Your task to perform on an android device: turn on priority inbox in the gmail app Image 0: 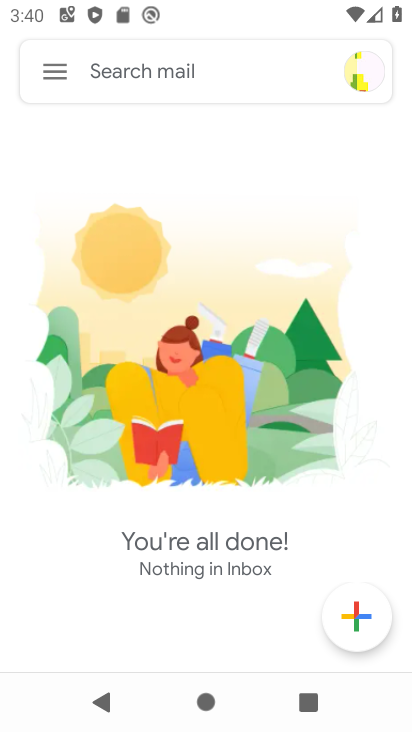
Step 0: click (61, 70)
Your task to perform on an android device: turn on priority inbox in the gmail app Image 1: 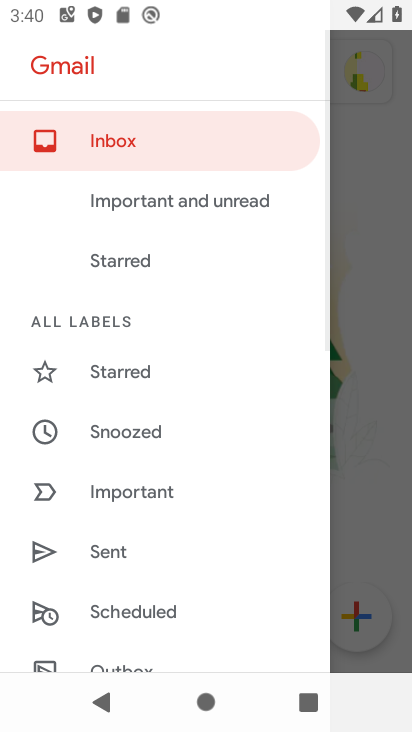
Step 1: drag from (125, 593) to (143, 313)
Your task to perform on an android device: turn on priority inbox in the gmail app Image 2: 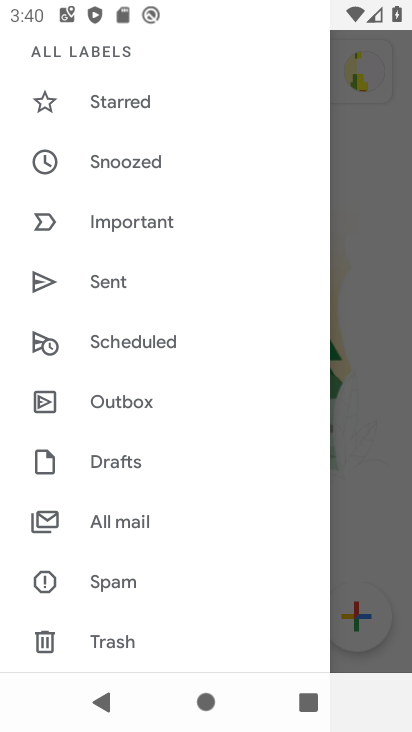
Step 2: drag from (196, 625) to (233, 270)
Your task to perform on an android device: turn on priority inbox in the gmail app Image 3: 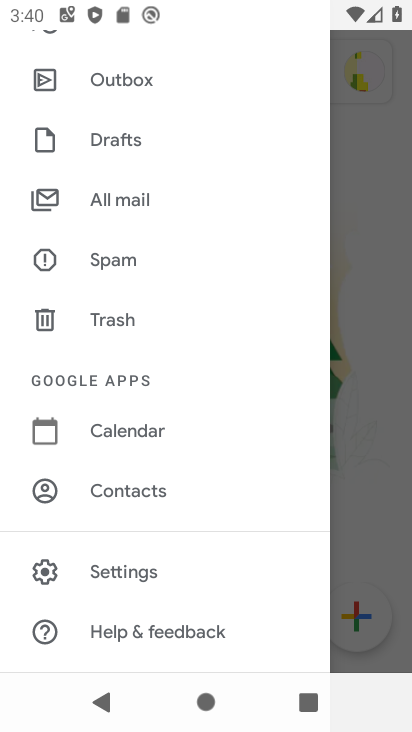
Step 3: click (147, 573)
Your task to perform on an android device: turn on priority inbox in the gmail app Image 4: 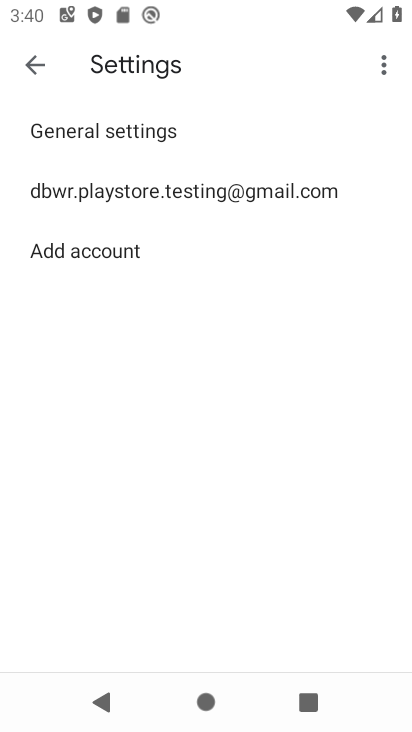
Step 4: click (154, 196)
Your task to perform on an android device: turn on priority inbox in the gmail app Image 5: 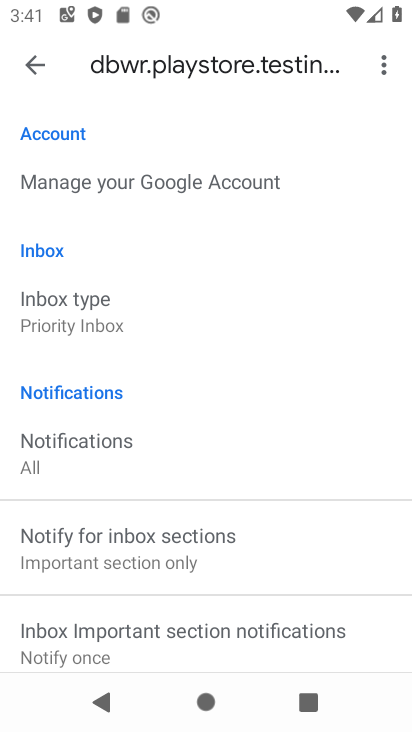
Step 5: task complete